Your task to perform on an android device: Show me the alarms in the clock app Image 0: 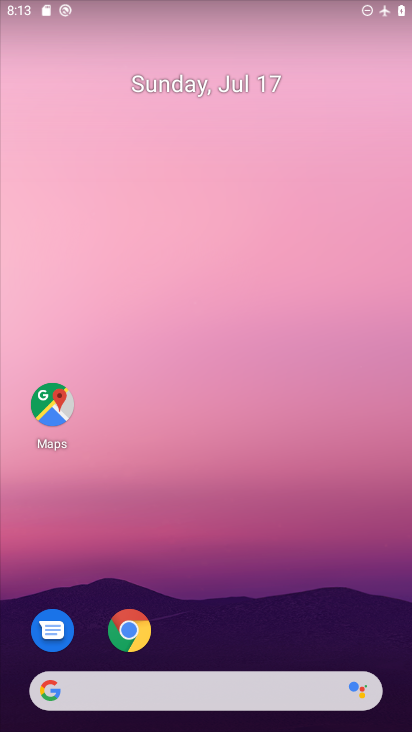
Step 0: drag from (344, 606) to (194, 30)
Your task to perform on an android device: Show me the alarms in the clock app Image 1: 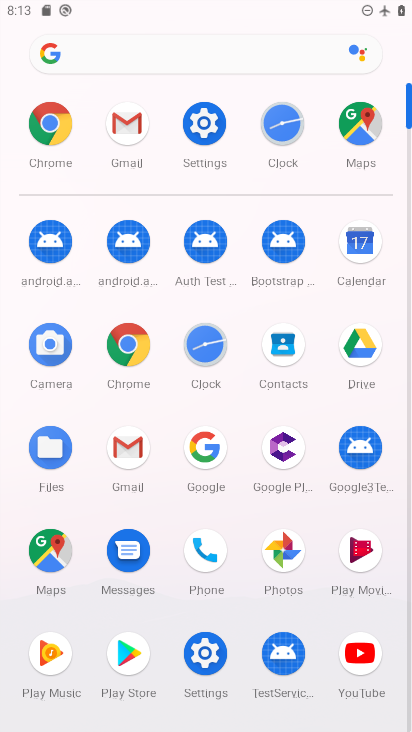
Step 1: click (214, 320)
Your task to perform on an android device: Show me the alarms in the clock app Image 2: 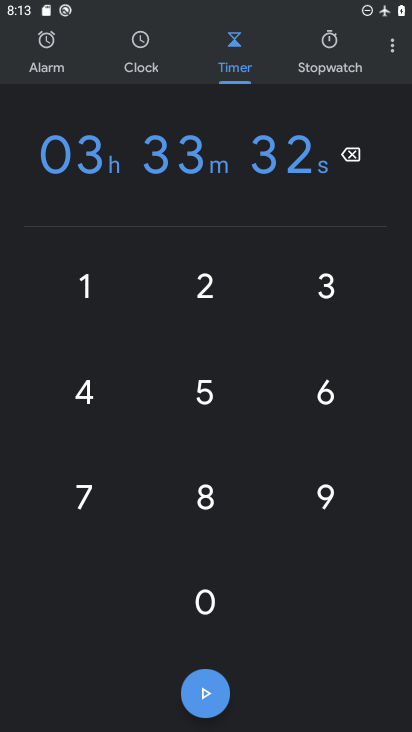
Step 2: click (43, 52)
Your task to perform on an android device: Show me the alarms in the clock app Image 3: 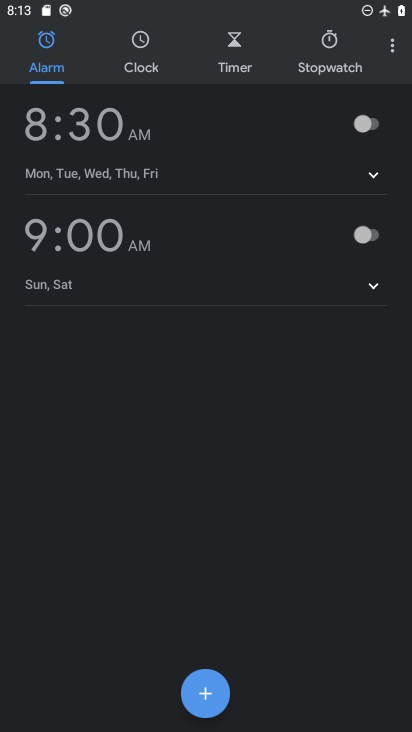
Step 3: task complete